Your task to perform on an android device: snooze an email in the gmail app Image 0: 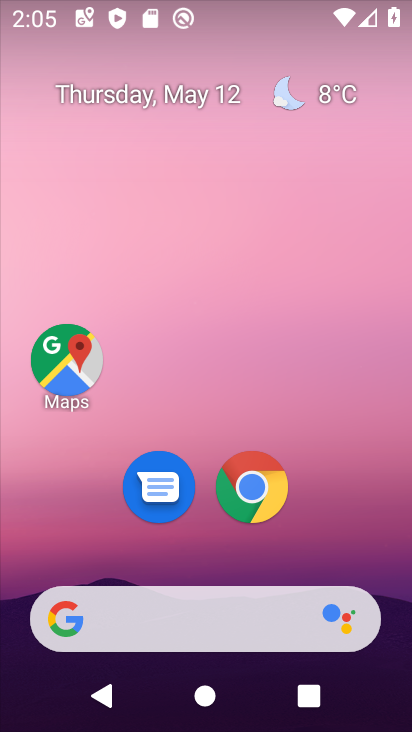
Step 0: drag from (242, 543) to (233, 91)
Your task to perform on an android device: snooze an email in the gmail app Image 1: 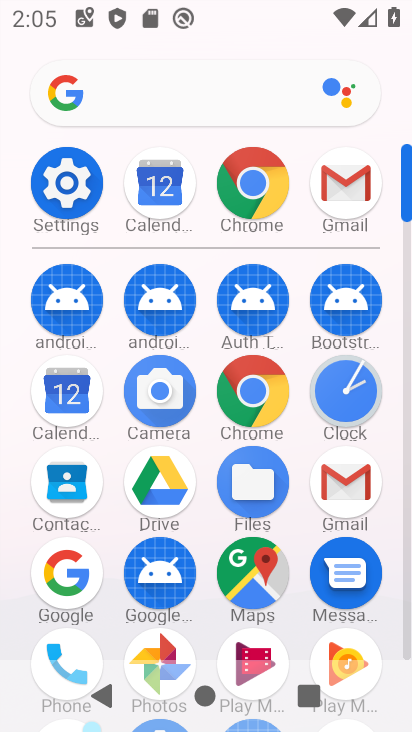
Step 1: click (352, 480)
Your task to perform on an android device: snooze an email in the gmail app Image 2: 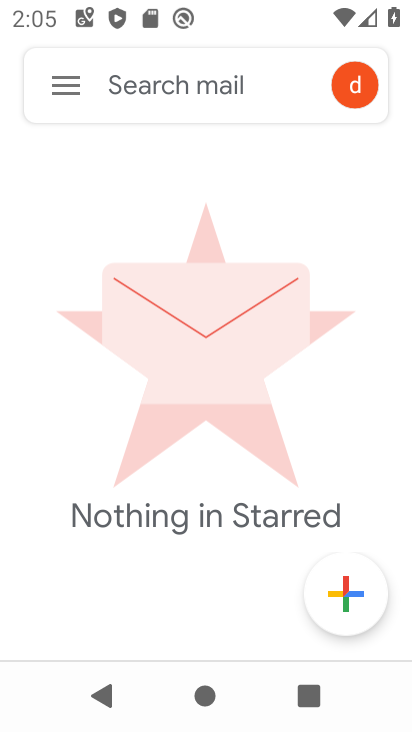
Step 2: click (75, 95)
Your task to perform on an android device: snooze an email in the gmail app Image 3: 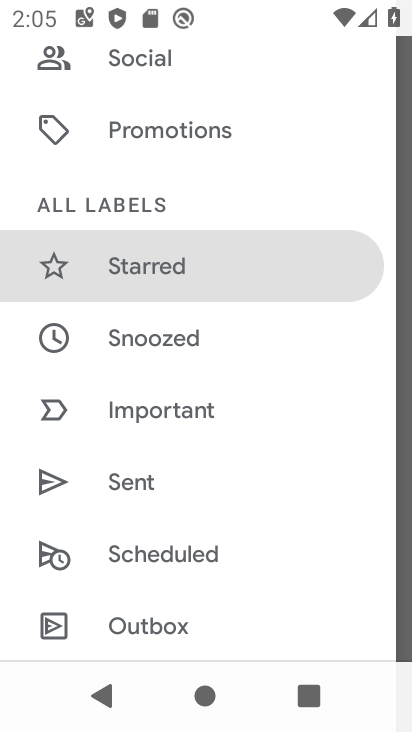
Step 3: click (154, 333)
Your task to perform on an android device: snooze an email in the gmail app Image 4: 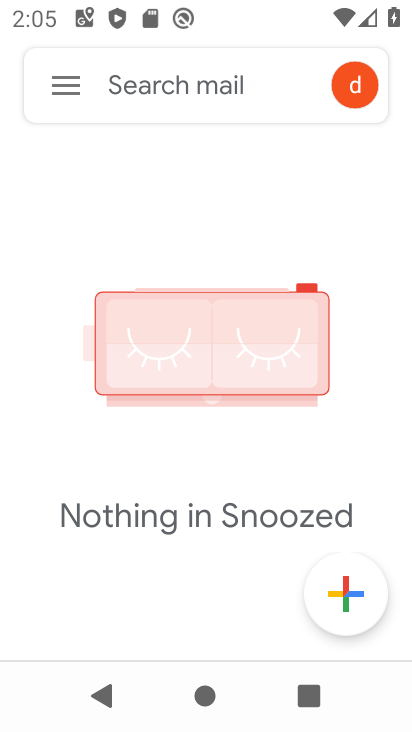
Step 4: task complete